Your task to perform on an android device: open app "Airtel Thanks" Image 0: 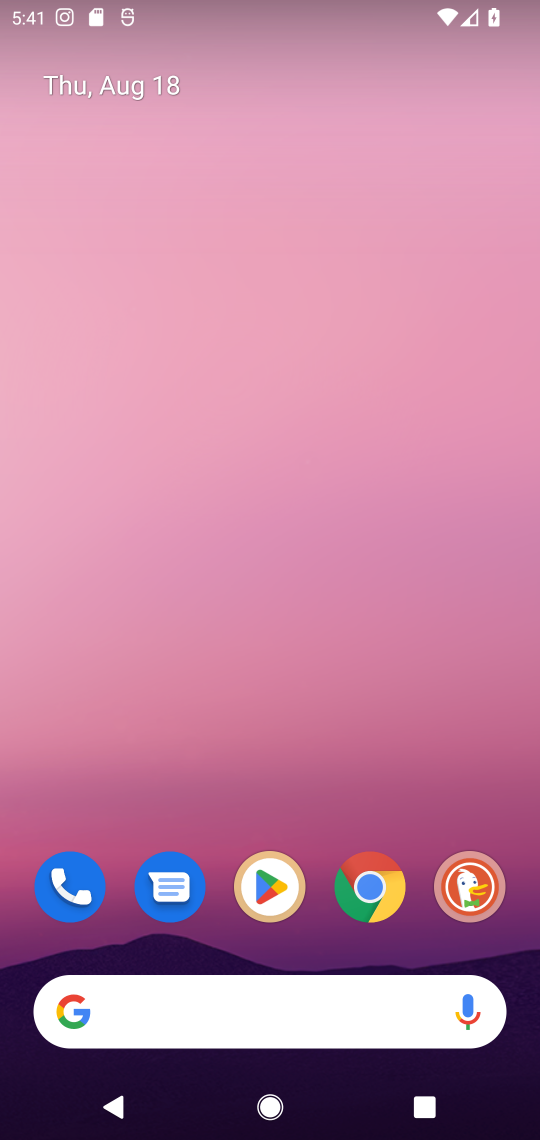
Step 0: click (273, 891)
Your task to perform on an android device: open app "Airtel Thanks" Image 1: 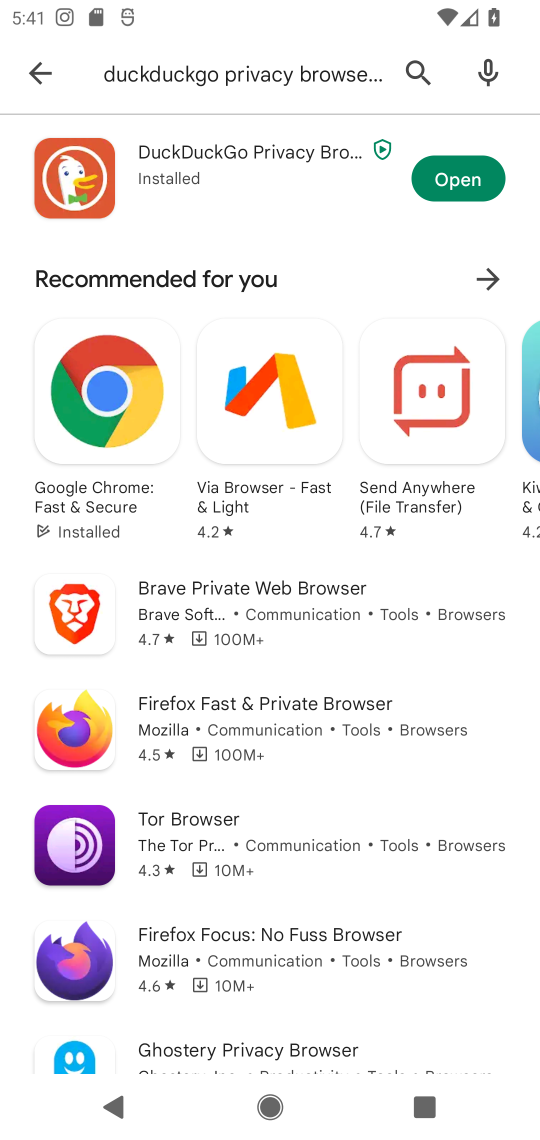
Step 1: click (412, 68)
Your task to perform on an android device: open app "Airtel Thanks" Image 2: 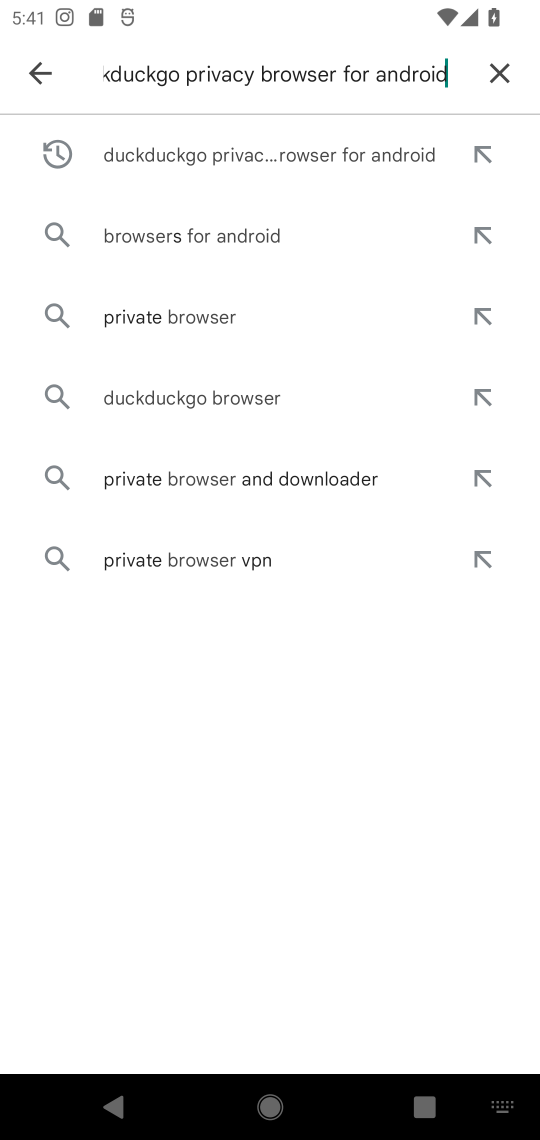
Step 2: click (494, 64)
Your task to perform on an android device: open app "Airtel Thanks" Image 3: 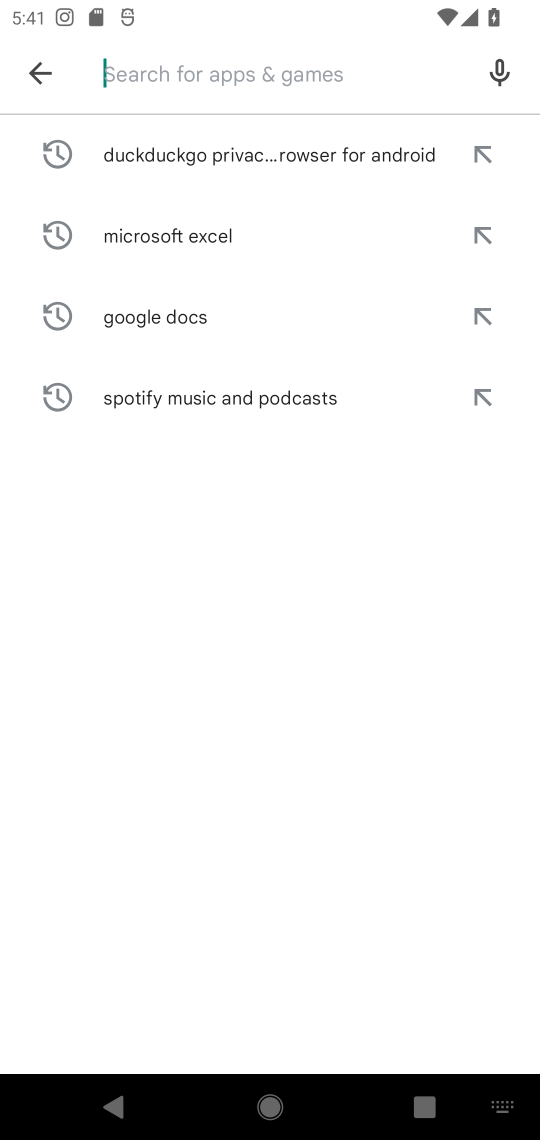
Step 3: type "Airtel Thanks"
Your task to perform on an android device: open app "Airtel Thanks" Image 4: 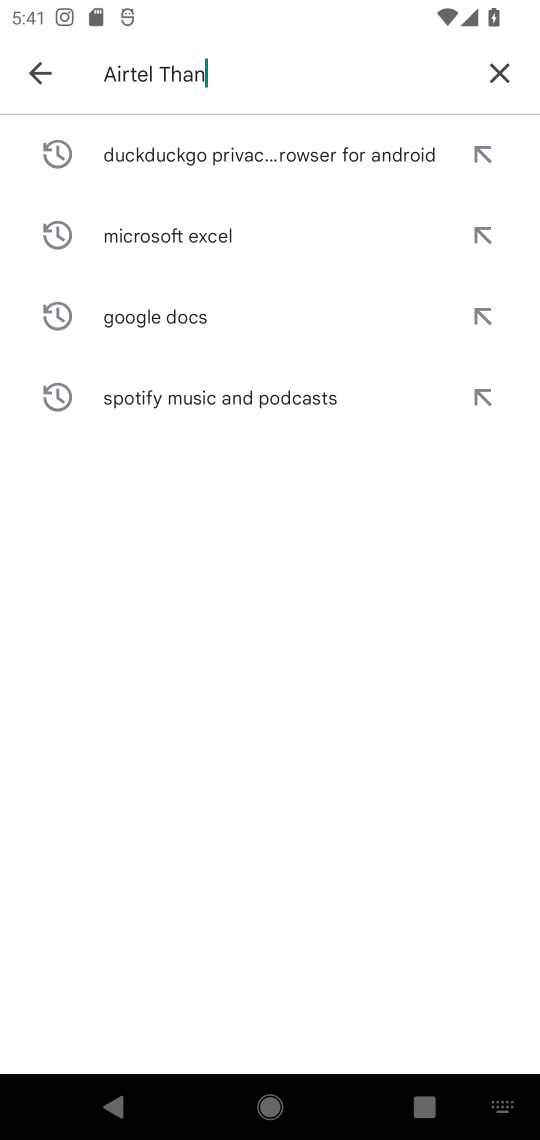
Step 4: type ""
Your task to perform on an android device: open app "Airtel Thanks" Image 5: 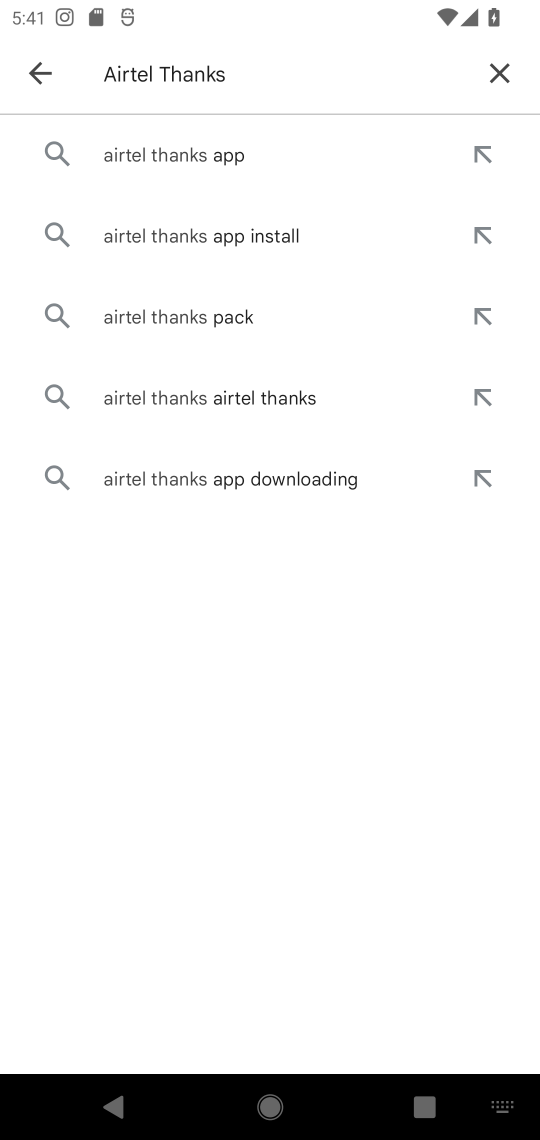
Step 5: click (177, 157)
Your task to perform on an android device: open app "Airtel Thanks" Image 6: 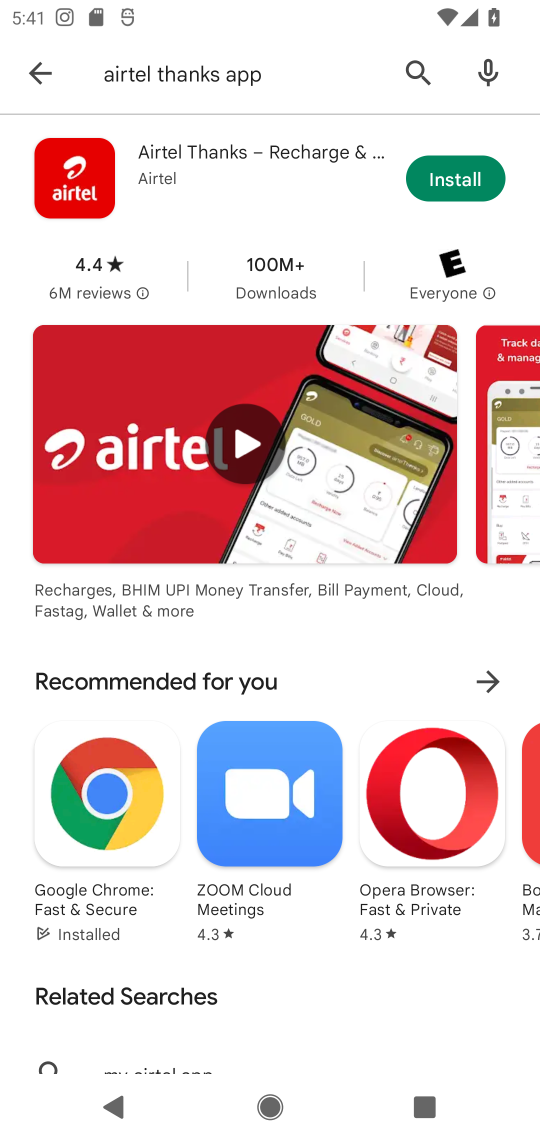
Step 6: task complete